Your task to perform on an android device: Go to Maps Image 0: 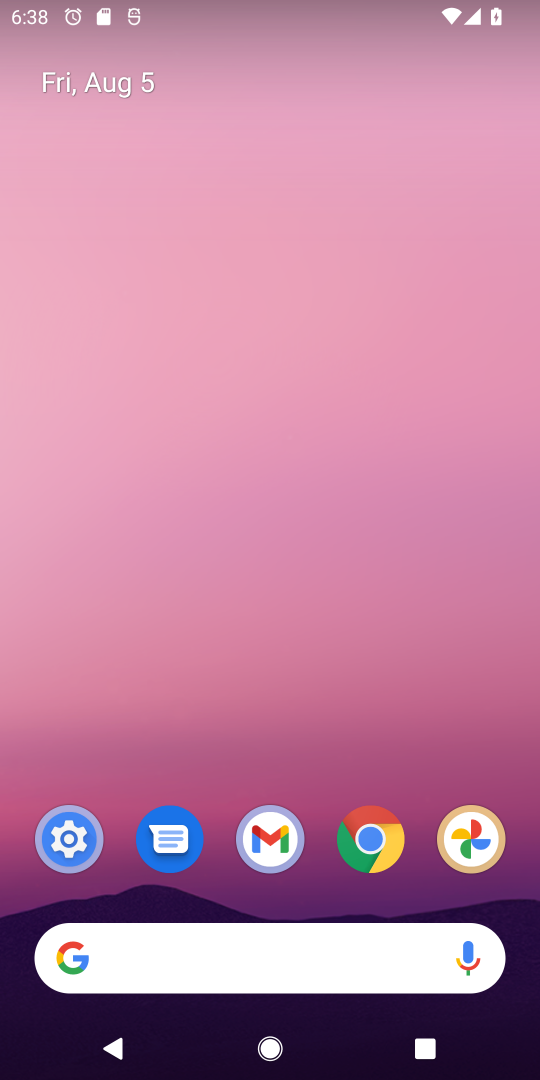
Step 0: drag from (306, 716) to (286, 139)
Your task to perform on an android device: Go to Maps Image 1: 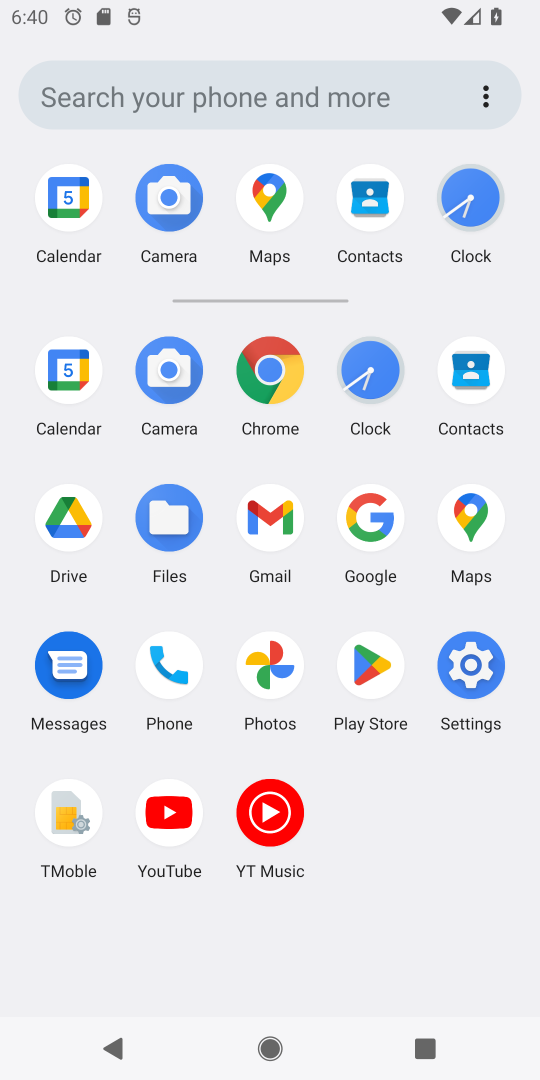
Step 1: click (270, 229)
Your task to perform on an android device: Go to Maps Image 2: 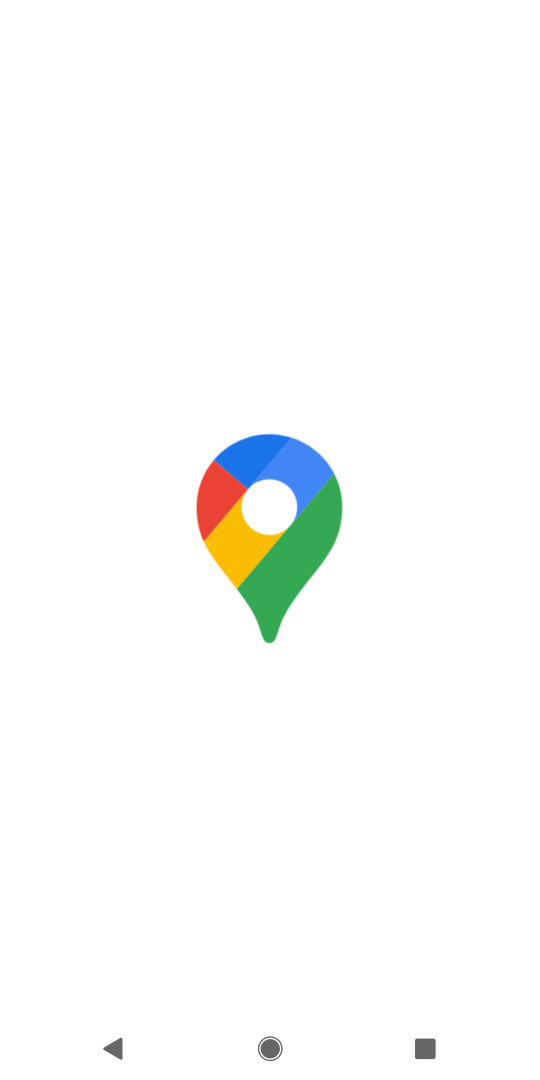
Step 2: task complete